Your task to perform on an android device: turn on notifications settings in the gmail app Image 0: 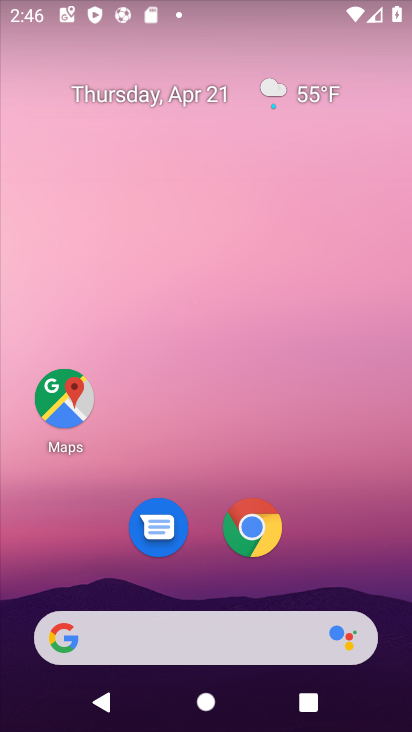
Step 0: drag from (357, 578) to (289, 216)
Your task to perform on an android device: turn on notifications settings in the gmail app Image 1: 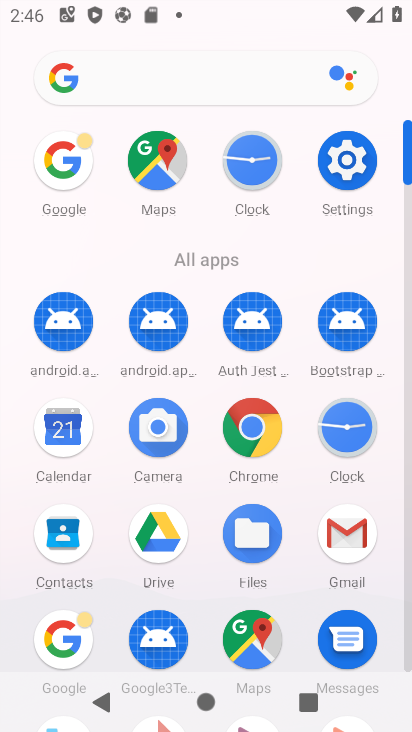
Step 1: click (356, 544)
Your task to perform on an android device: turn on notifications settings in the gmail app Image 2: 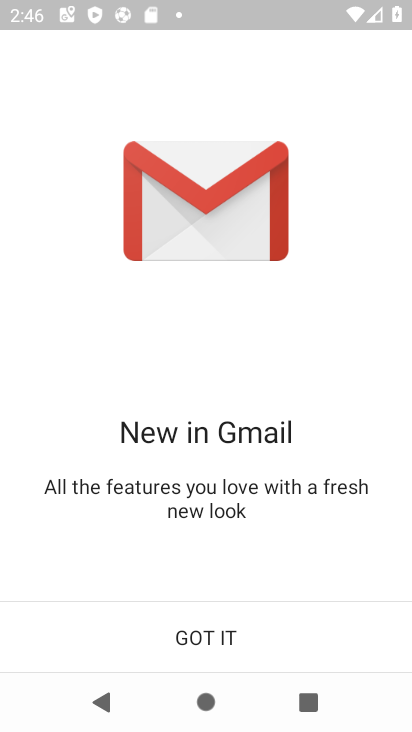
Step 2: click (226, 638)
Your task to perform on an android device: turn on notifications settings in the gmail app Image 3: 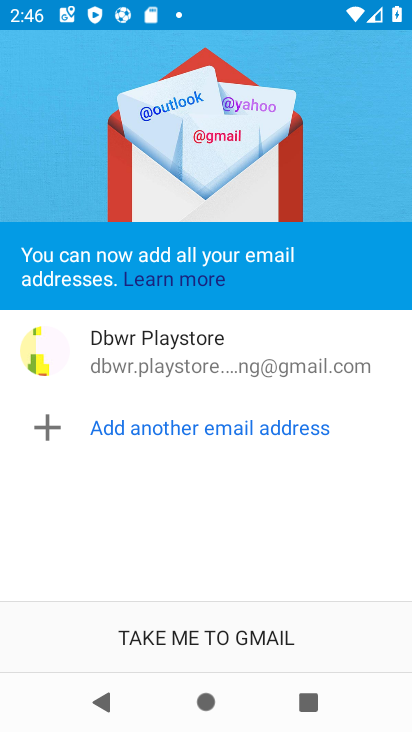
Step 3: click (226, 638)
Your task to perform on an android device: turn on notifications settings in the gmail app Image 4: 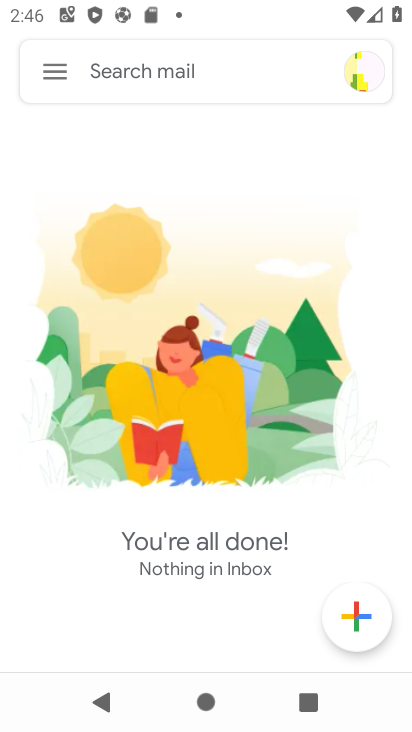
Step 4: click (56, 77)
Your task to perform on an android device: turn on notifications settings in the gmail app Image 5: 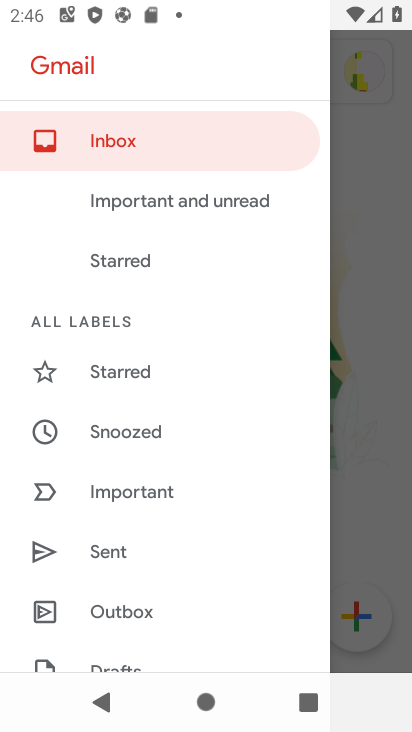
Step 5: drag from (211, 631) to (249, 263)
Your task to perform on an android device: turn on notifications settings in the gmail app Image 6: 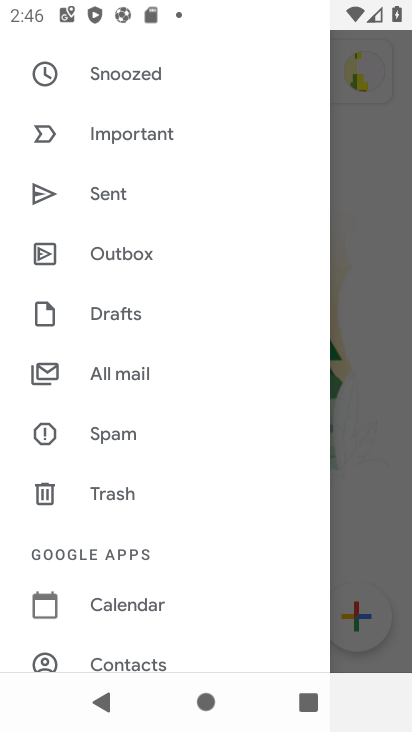
Step 6: drag from (242, 628) to (286, 170)
Your task to perform on an android device: turn on notifications settings in the gmail app Image 7: 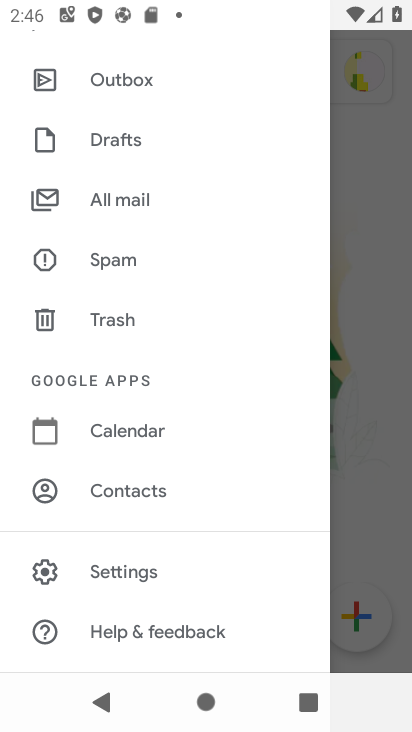
Step 7: click (124, 585)
Your task to perform on an android device: turn on notifications settings in the gmail app Image 8: 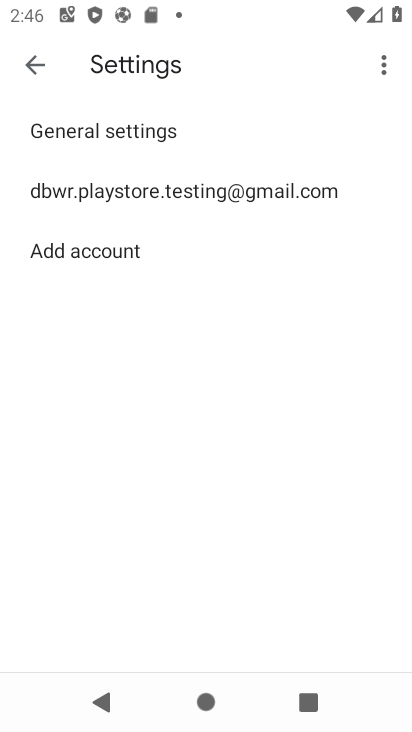
Step 8: click (265, 201)
Your task to perform on an android device: turn on notifications settings in the gmail app Image 9: 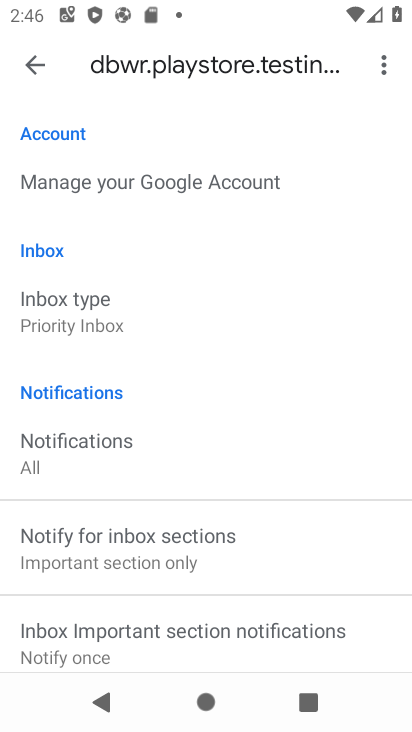
Step 9: drag from (222, 508) to (216, 184)
Your task to perform on an android device: turn on notifications settings in the gmail app Image 10: 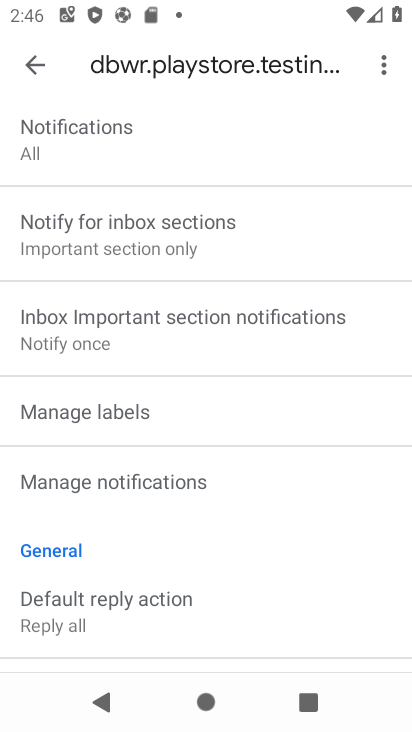
Step 10: click (235, 465)
Your task to perform on an android device: turn on notifications settings in the gmail app Image 11: 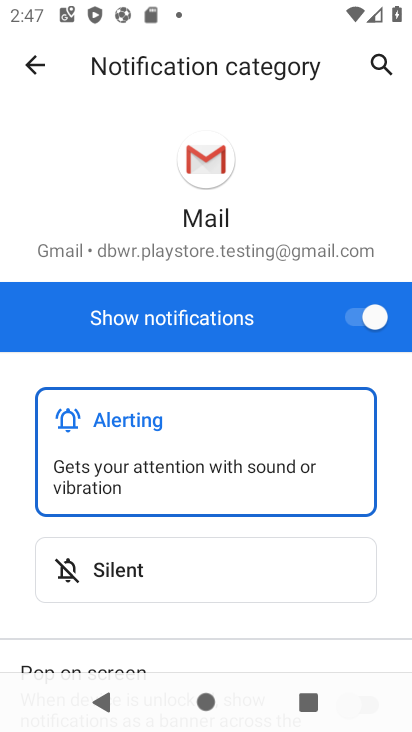
Step 11: drag from (278, 595) to (274, 247)
Your task to perform on an android device: turn on notifications settings in the gmail app Image 12: 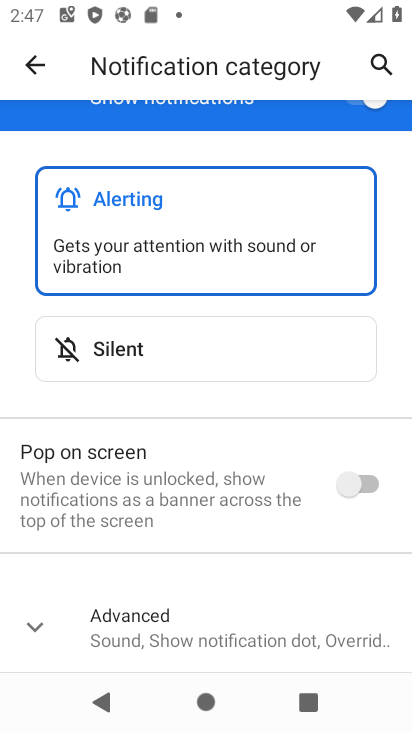
Step 12: click (367, 476)
Your task to perform on an android device: turn on notifications settings in the gmail app Image 13: 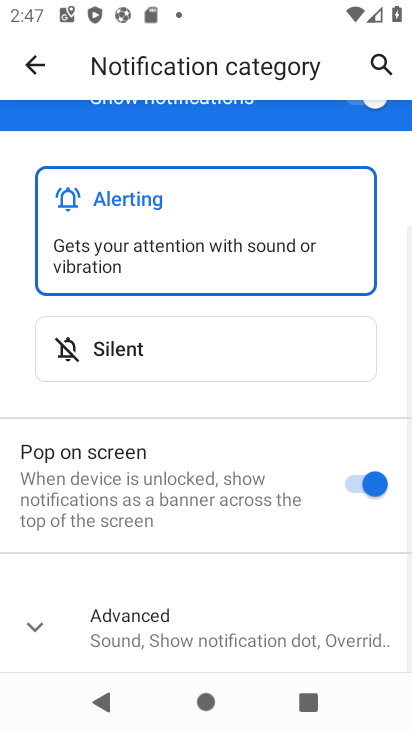
Step 13: task complete